Your task to perform on an android device: Open CNN.com Image 0: 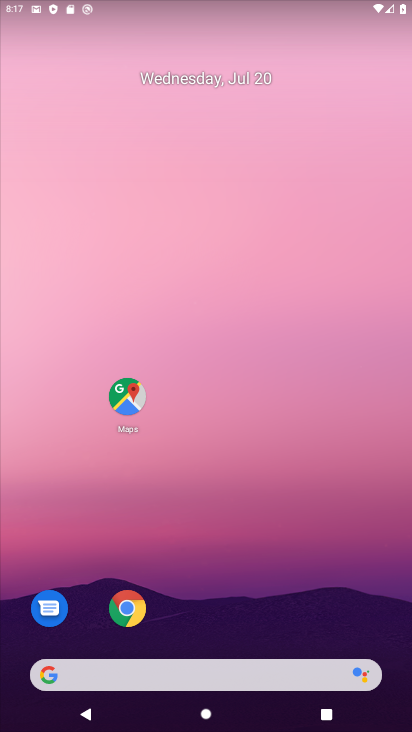
Step 0: click (114, 619)
Your task to perform on an android device: Open CNN.com Image 1: 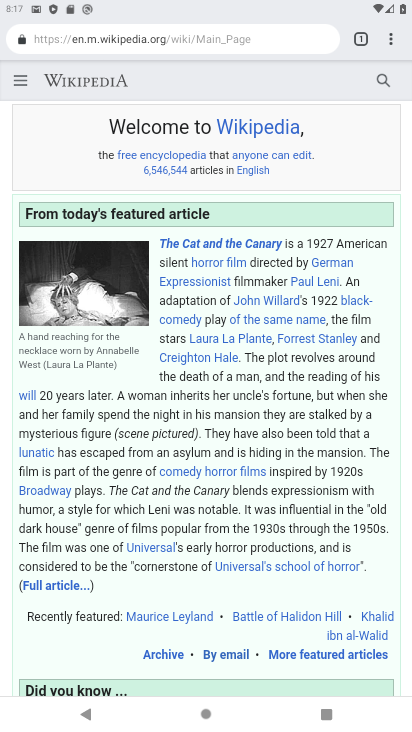
Step 1: click (190, 31)
Your task to perform on an android device: Open CNN.com Image 2: 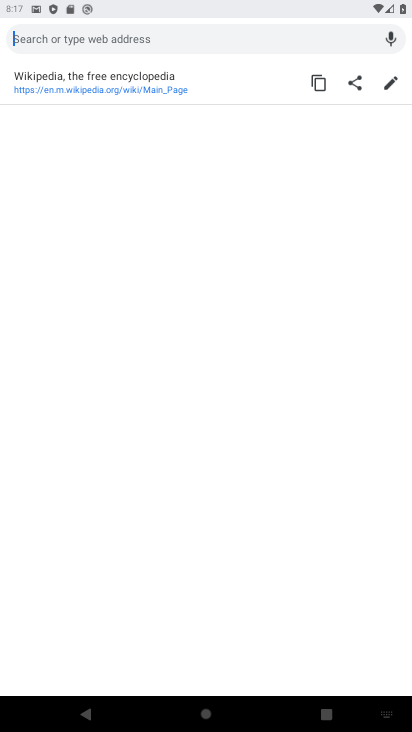
Step 2: click (190, 31)
Your task to perform on an android device: Open CNN.com Image 3: 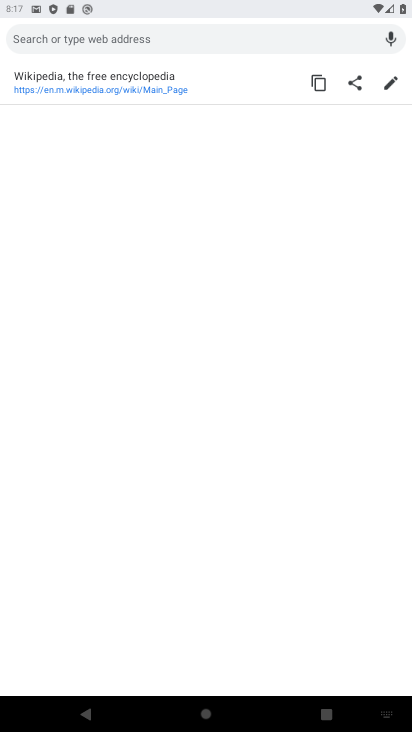
Step 3: type "CNN.com"
Your task to perform on an android device: Open CNN.com Image 4: 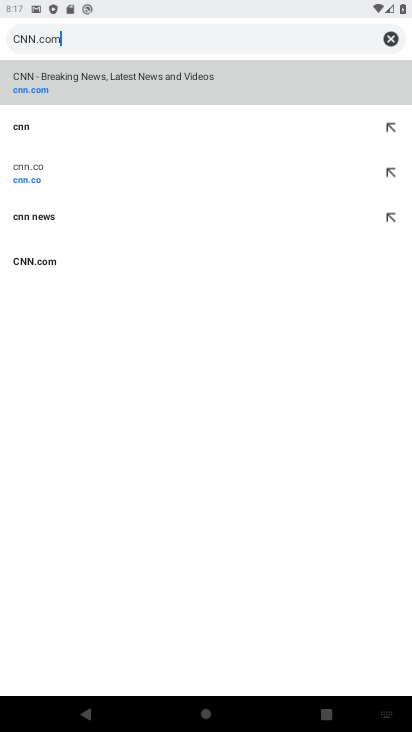
Step 4: type ""
Your task to perform on an android device: Open CNN.com Image 5: 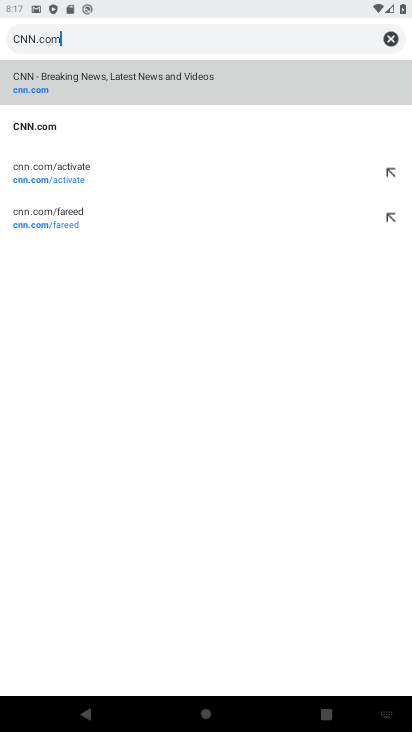
Step 5: click (62, 74)
Your task to perform on an android device: Open CNN.com Image 6: 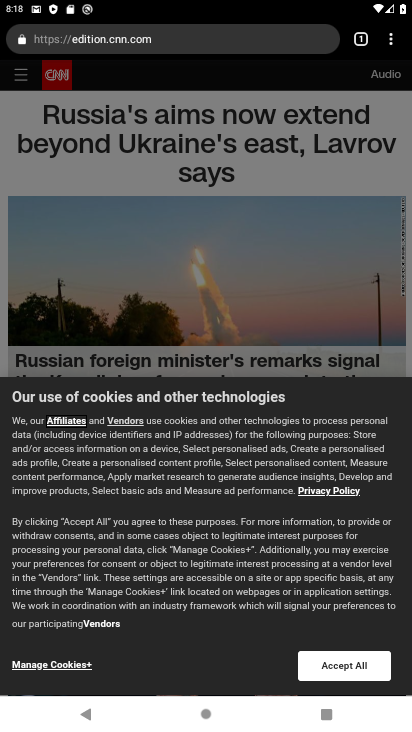
Step 6: task complete